Your task to perform on an android device: Do I have any events tomorrow? Image 0: 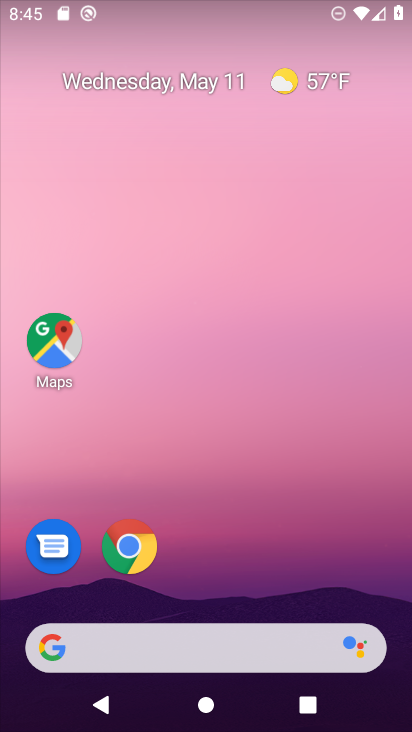
Step 0: drag from (250, 583) to (261, 259)
Your task to perform on an android device: Do I have any events tomorrow? Image 1: 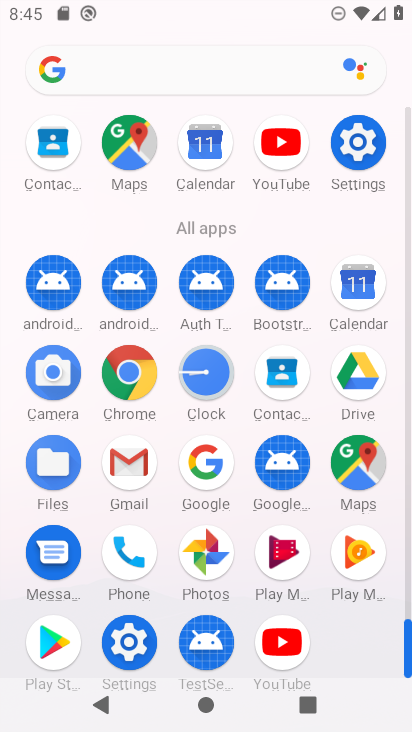
Step 1: click (347, 298)
Your task to perform on an android device: Do I have any events tomorrow? Image 2: 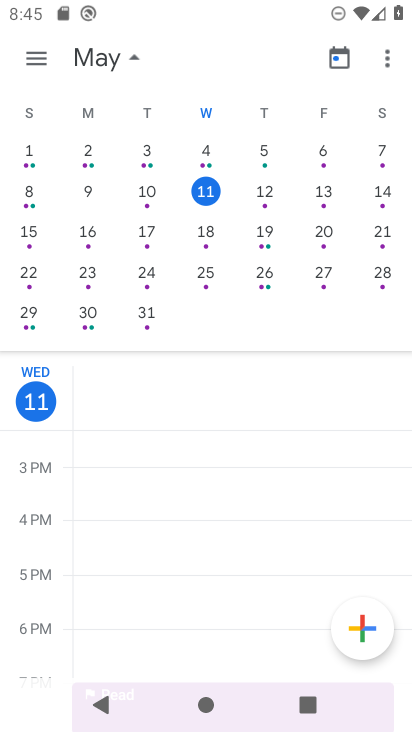
Step 2: click (263, 199)
Your task to perform on an android device: Do I have any events tomorrow? Image 3: 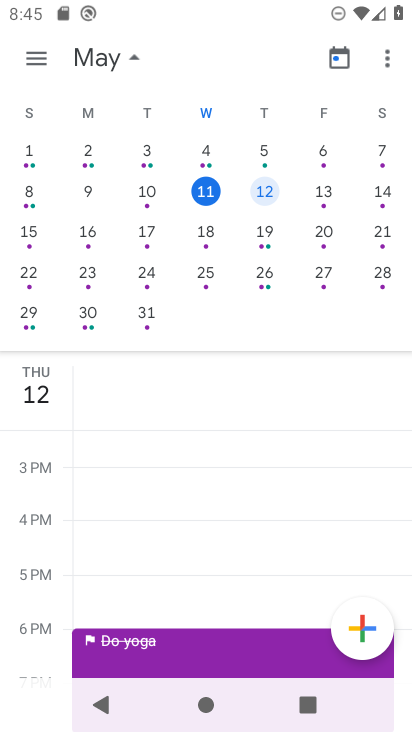
Step 3: drag from (278, 502) to (281, 265)
Your task to perform on an android device: Do I have any events tomorrow? Image 4: 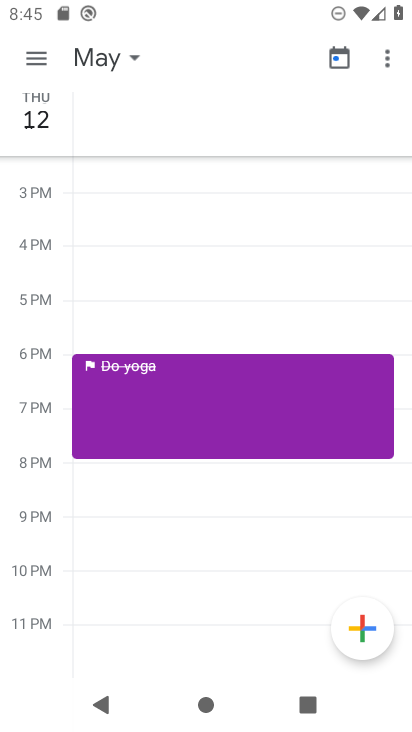
Step 4: click (33, 65)
Your task to perform on an android device: Do I have any events tomorrow? Image 5: 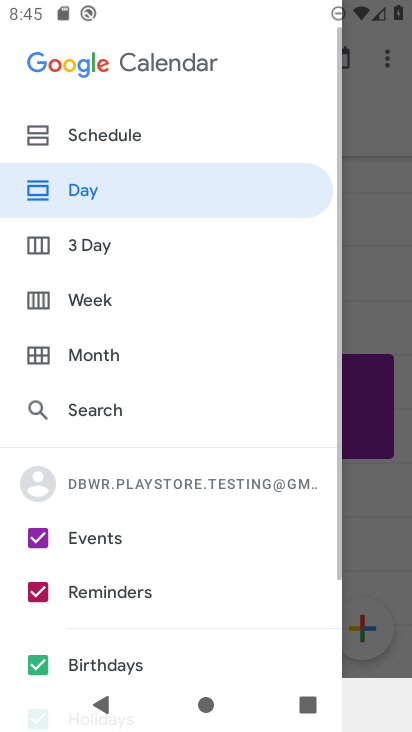
Step 5: task complete